Your task to perform on an android device: toggle pop-ups in chrome Image 0: 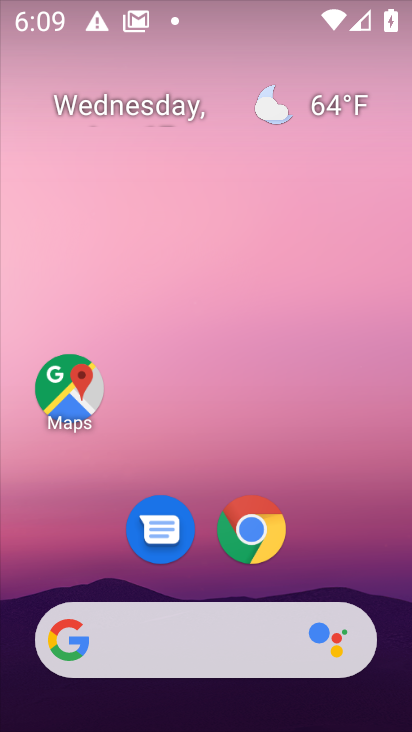
Step 0: press home button
Your task to perform on an android device: toggle pop-ups in chrome Image 1: 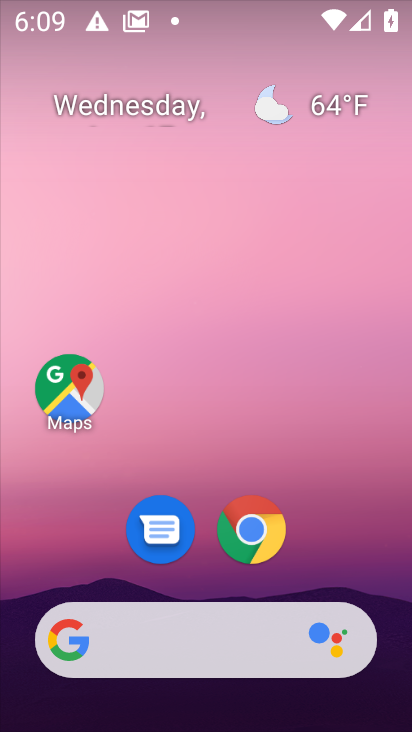
Step 1: click (249, 529)
Your task to perform on an android device: toggle pop-ups in chrome Image 2: 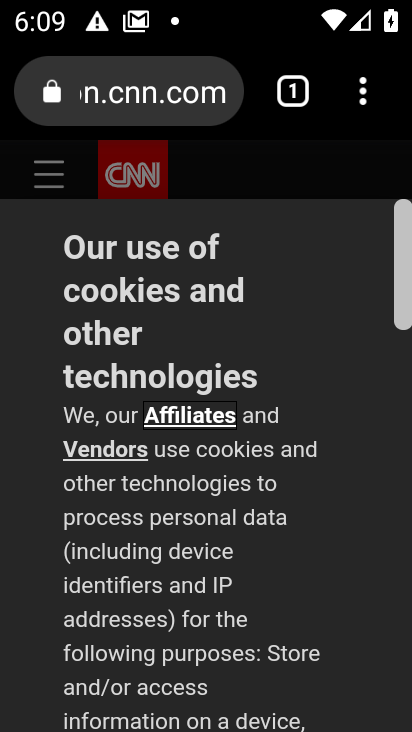
Step 2: click (364, 100)
Your task to perform on an android device: toggle pop-ups in chrome Image 3: 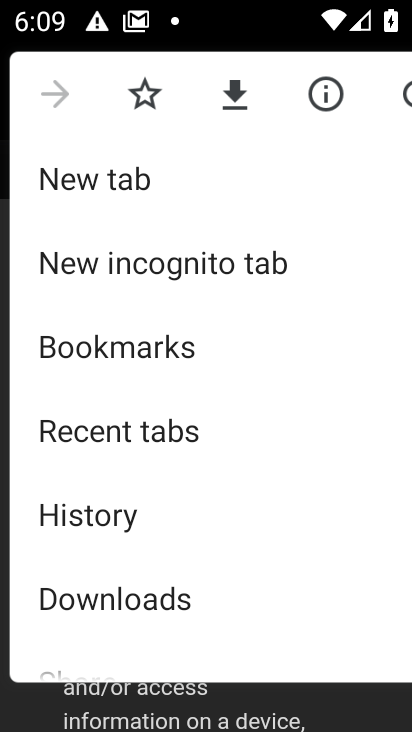
Step 3: drag from (179, 470) to (169, 267)
Your task to perform on an android device: toggle pop-ups in chrome Image 4: 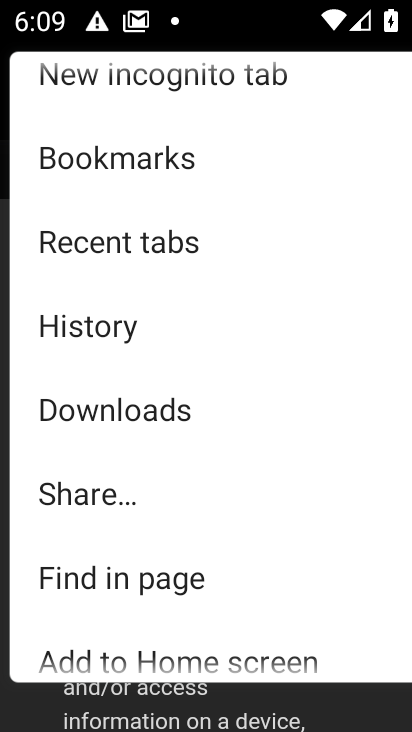
Step 4: drag from (209, 537) to (202, 280)
Your task to perform on an android device: toggle pop-ups in chrome Image 5: 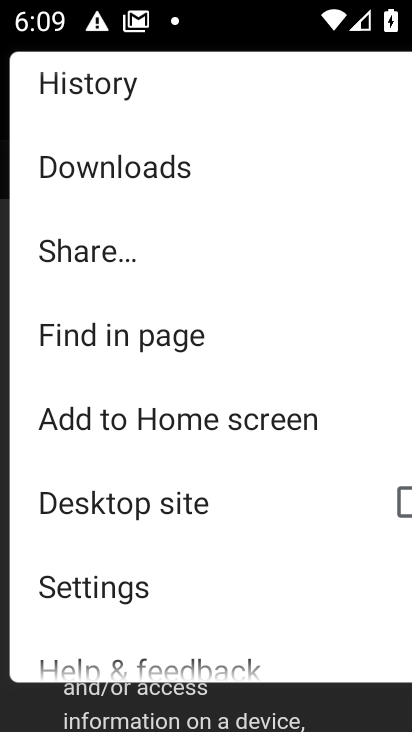
Step 5: click (101, 589)
Your task to perform on an android device: toggle pop-ups in chrome Image 6: 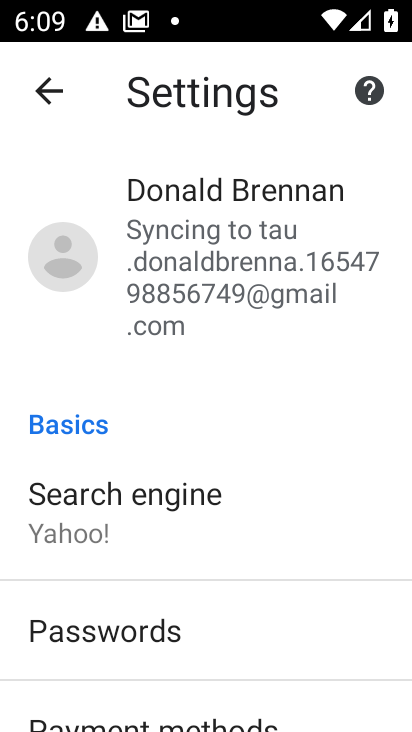
Step 6: drag from (179, 658) to (174, 236)
Your task to perform on an android device: toggle pop-ups in chrome Image 7: 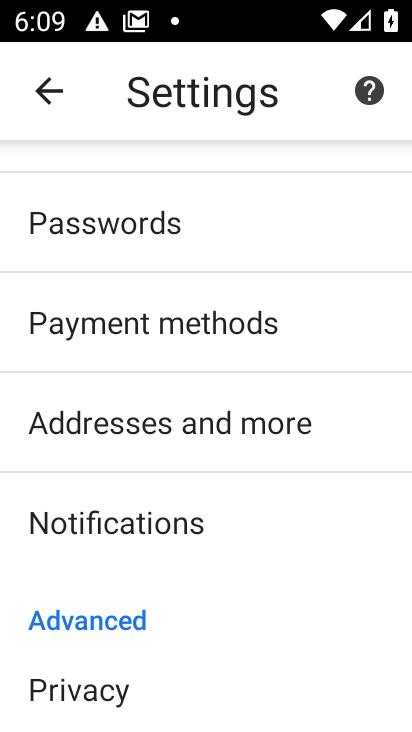
Step 7: drag from (245, 612) to (231, 242)
Your task to perform on an android device: toggle pop-ups in chrome Image 8: 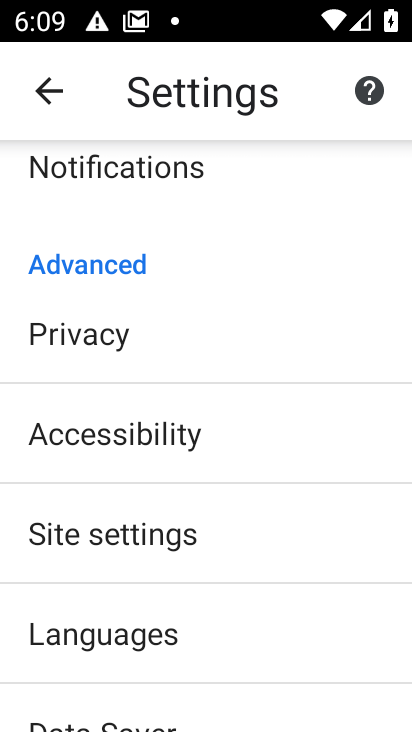
Step 8: click (134, 536)
Your task to perform on an android device: toggle pop-ups in chrome Image 9: 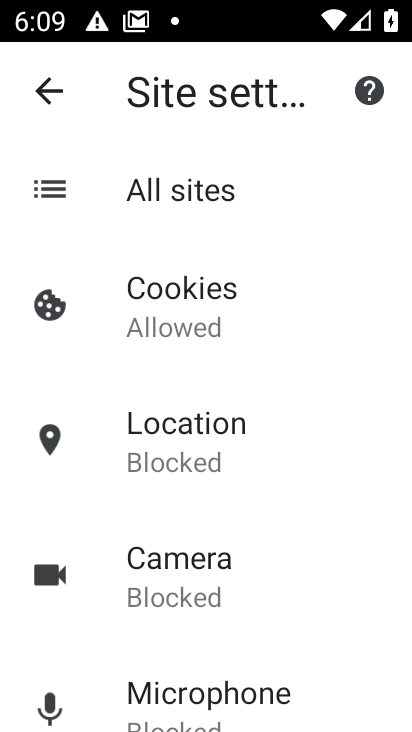
Step 9: drag from (232, 606) to (227, 370)
Your task to perform on an android device: toggle pop-ups in chrome Image 10: 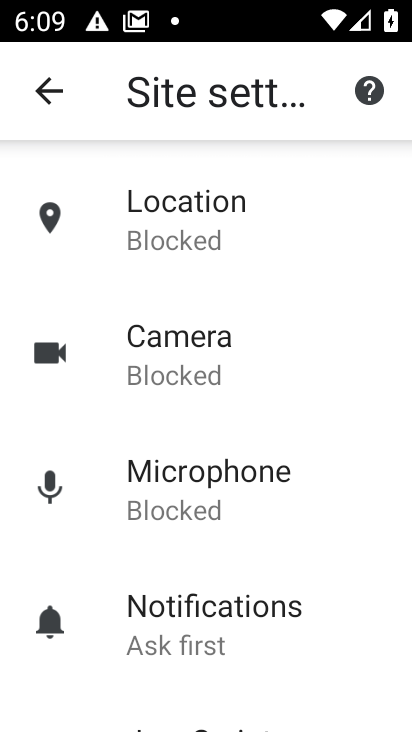
Step 10: drag from (279, 689) to (247, 432)
Your task to perform on an android device: toggle pop-ups in chrome Image 11: 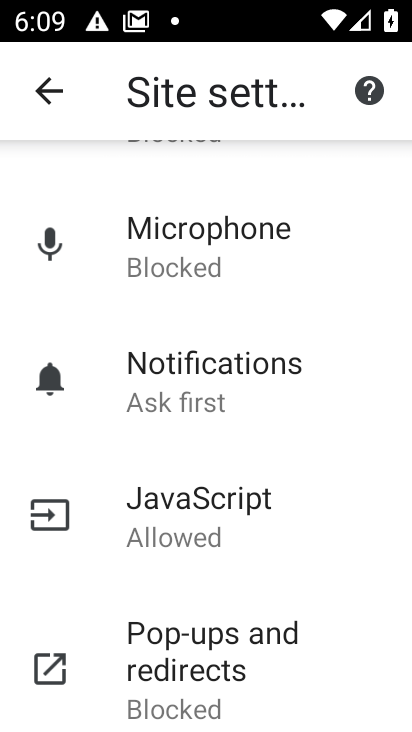
Step 11: click (194, 662)
Your task to perform on an android device: toggle pop-ups in chrome Image 12: 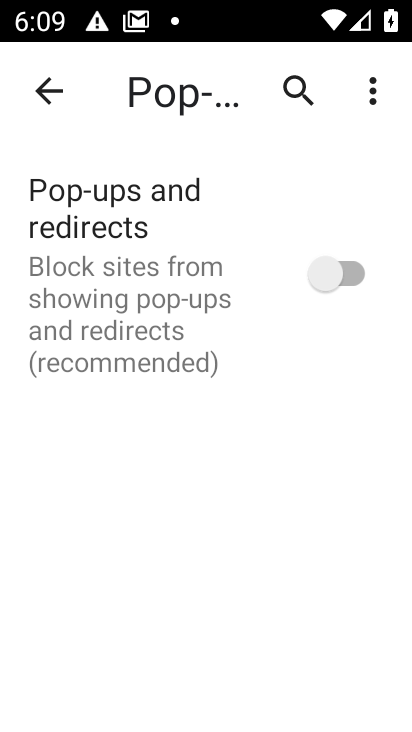
Step 12: click (347, 278)
Your task to perform on an android device: toggle pop-ups in chrome Image 13: 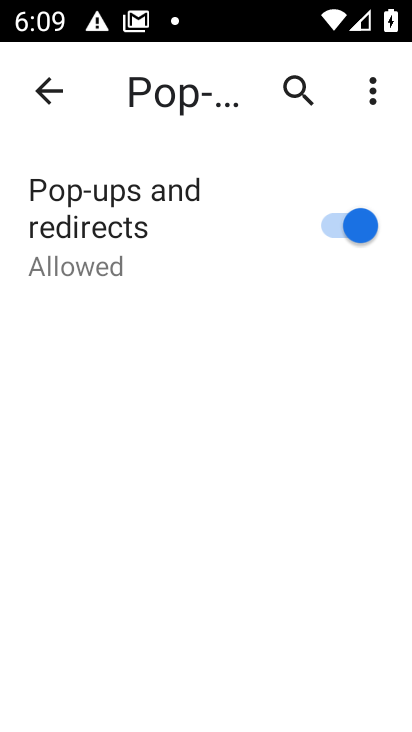
Step 13: task complete